Your task to perform on an android device: create a new album in the google photos Image 0: 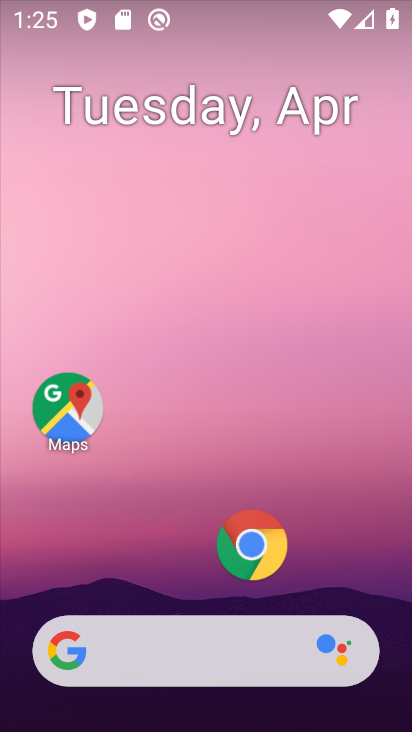
Step 0: drag from (161, 567) to (245, 185)
Your task to perform on an android device: create a new album in the google photos Image 1: 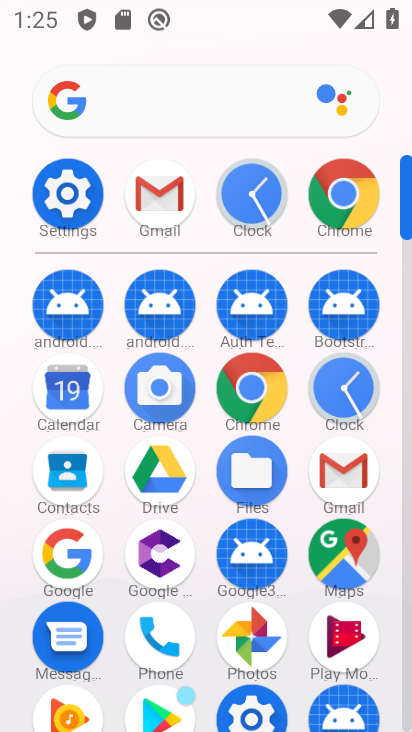
Step 1: click (239, 622)
Your task to perform on an android device: create a new album in the google photos Image 2: 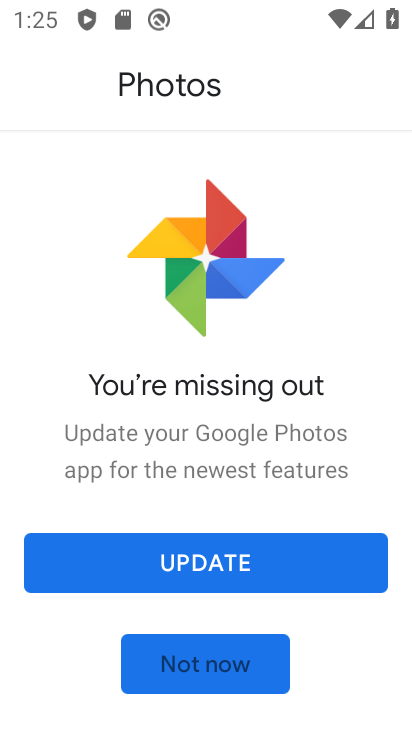
Step 2: click (218, 671)
Your task to perform on an android device: create a new album in the google photos Image 3: 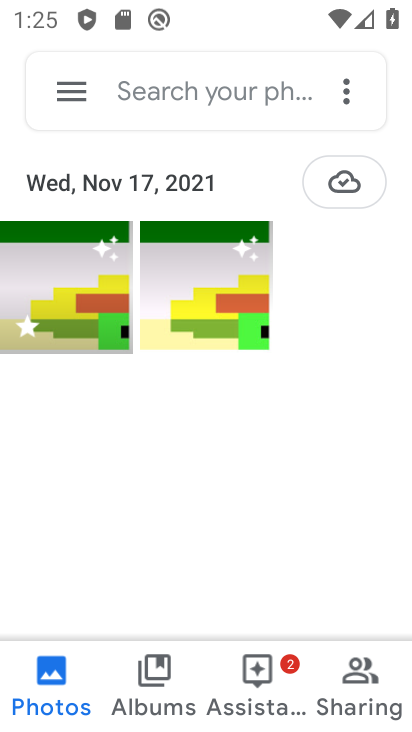
Step 3: click (94, 294)
Your task to perform on an android device: create a new album in the google photos Image 4: 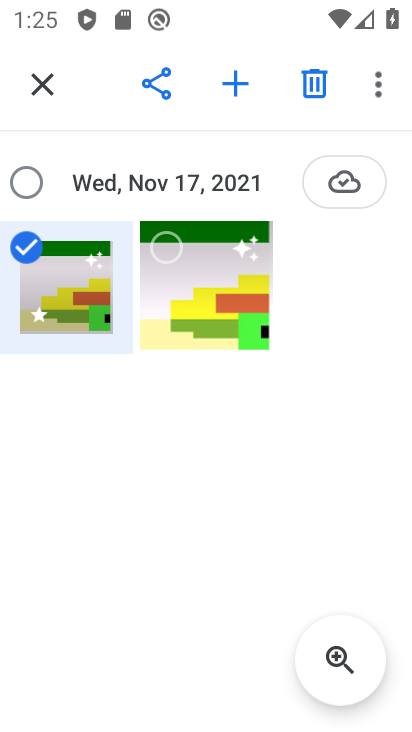
Step 4: click (234, 89)
Your task to perform on an android device: create a new album in the google photos Image 5: 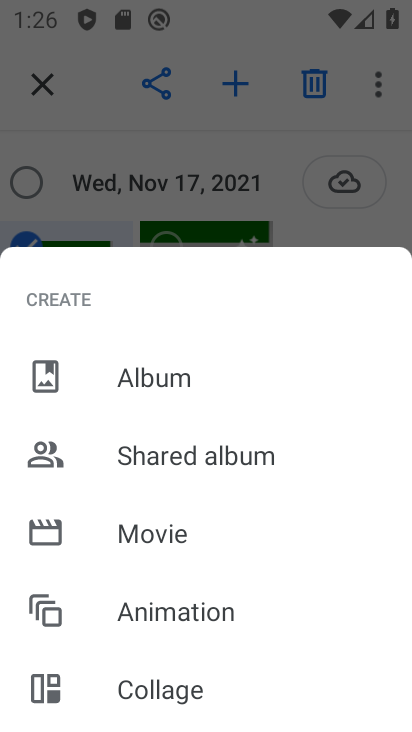
Step 5: click (211, 374)
Your task to perform on an android device: create a new album in the google photos Image 6: 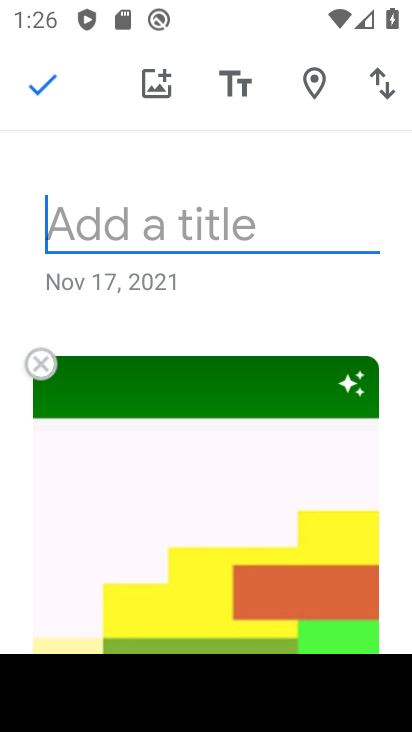
Step 6: type "lklklklklklk"
Your task to perform on an android device: create a new album in the google photos Image 7: 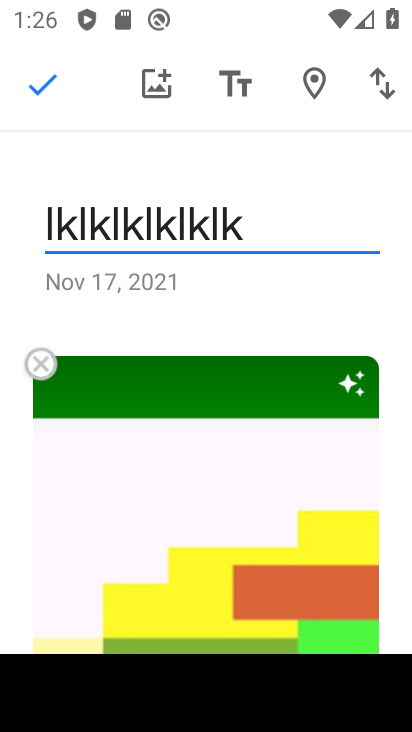
Step 7: click (12, 84)
Your task to perform on an android device: create a new album in the google photos Image 8: 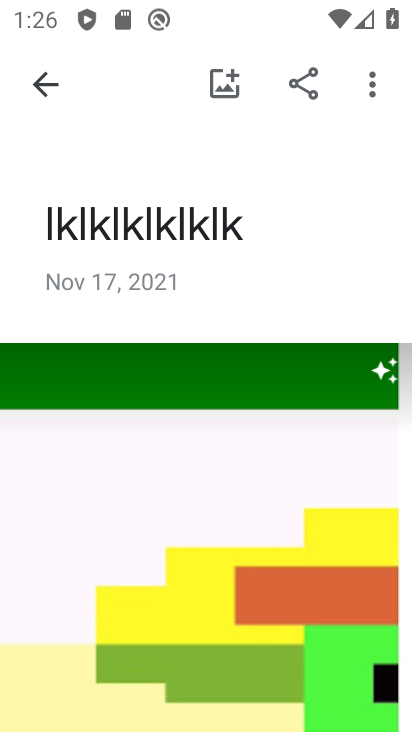
Step 8: task complete